Your task to perform on an android device: Go to Amazon Image 0: 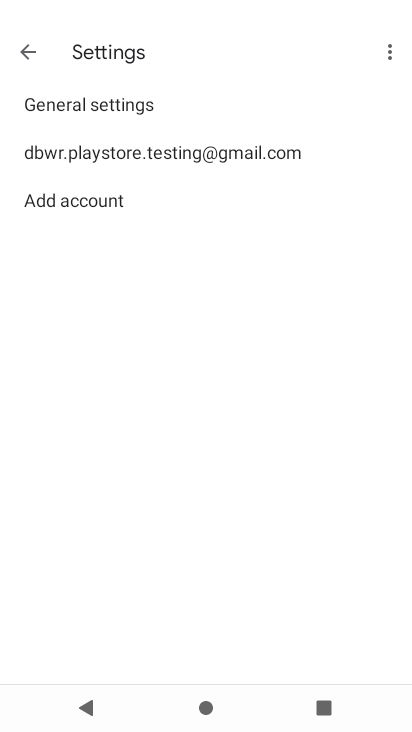
Step 0: press home button
Your task to perform on an android device: Go to Amazon Image 1: 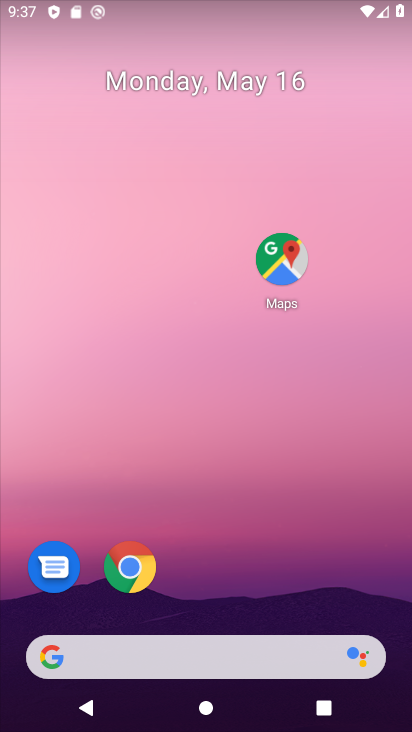
Step 1: click (128, 565)
Your task to perform on an android device: Go to Amazon Image 2: 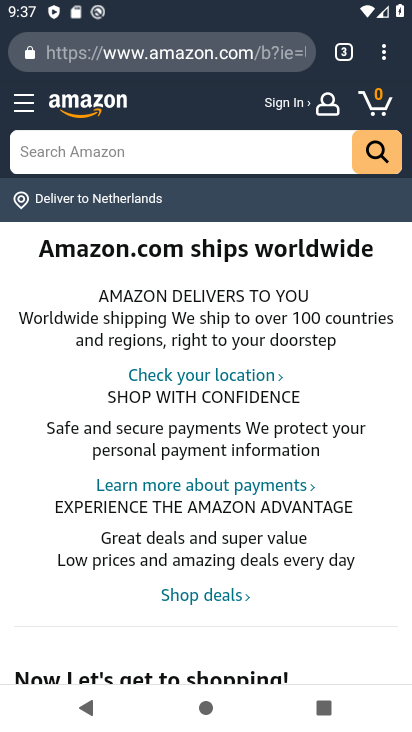
Step 2: task complete